Your task to perform on an android device: set the timer Image 0: 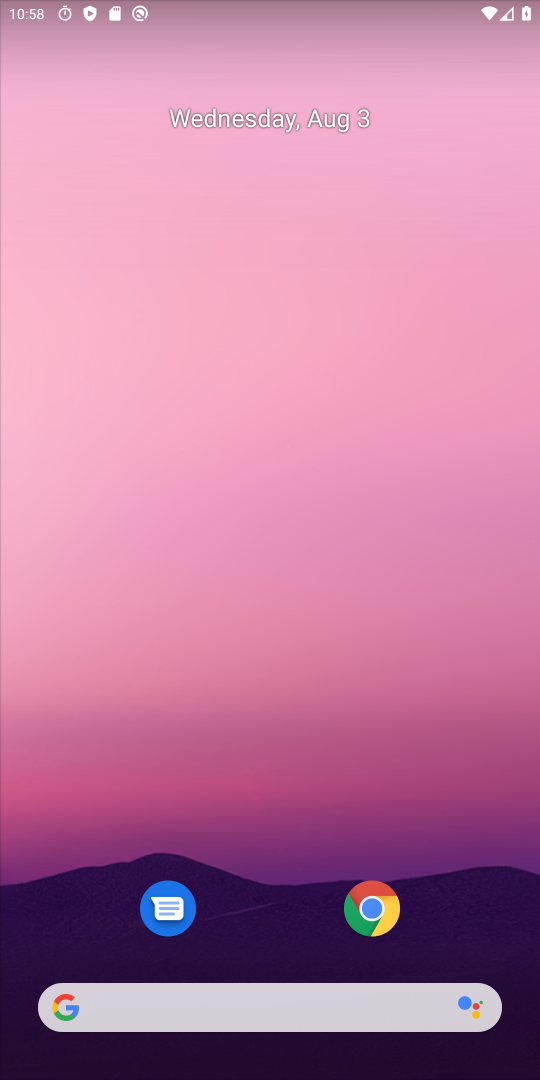
Step 0: press home button
Your task to perform on an android device: set the timer Image 1: 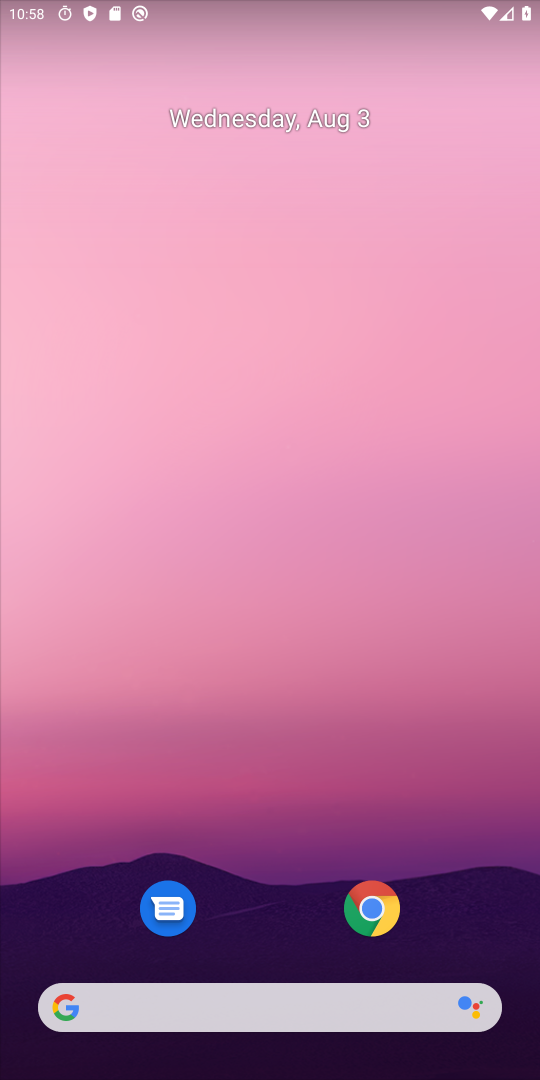
Step 1: drag from (310, 993) to (333, 237)
Your task to perform on an android device: set the timer Image 2: 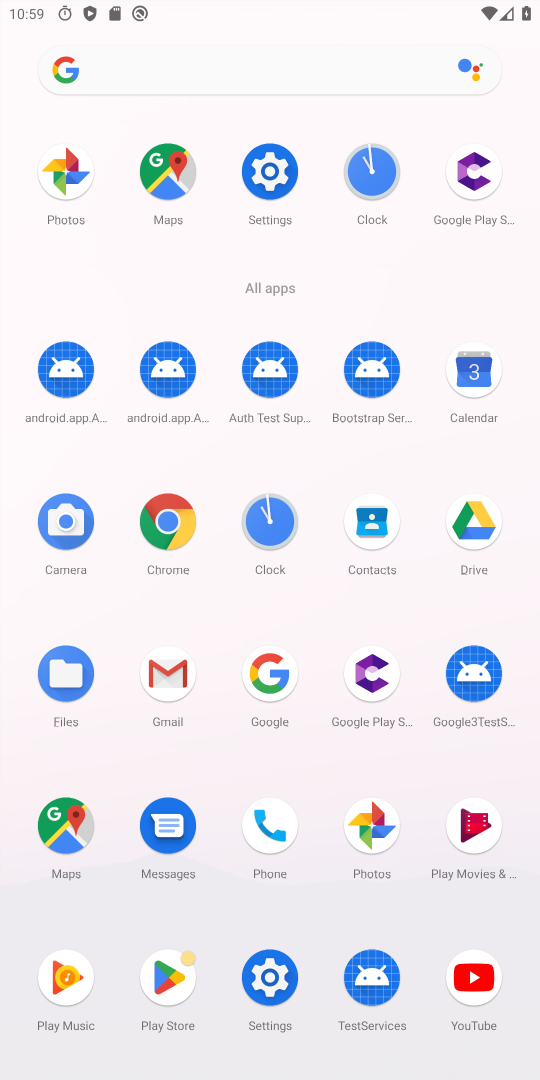
Step 2: click (367, 201)
Your task to perform on an android device: set the timer Image 3: 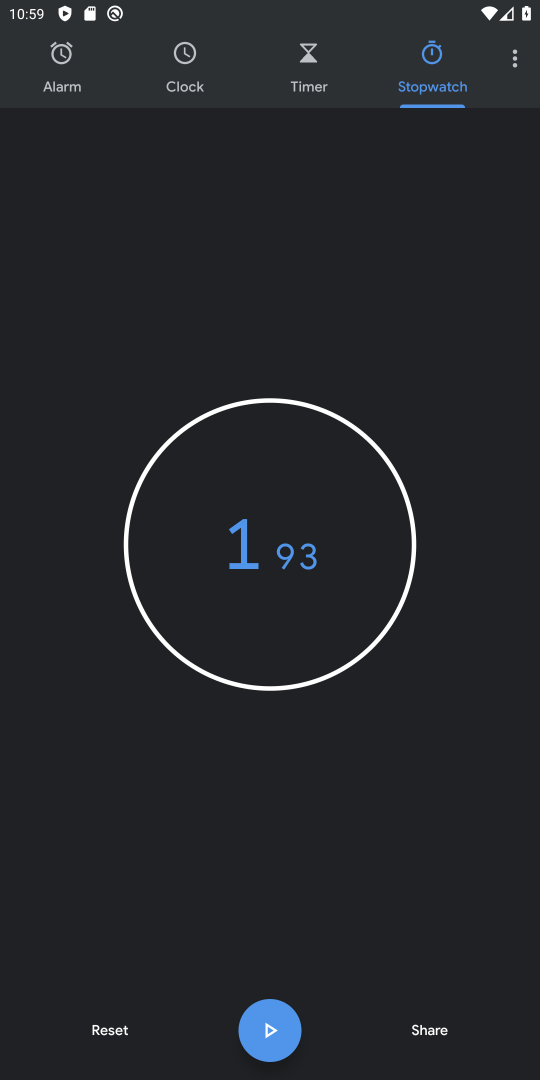
Step 3: click (310, 90)
Your task to perform on an android device: set the timer Image 4: 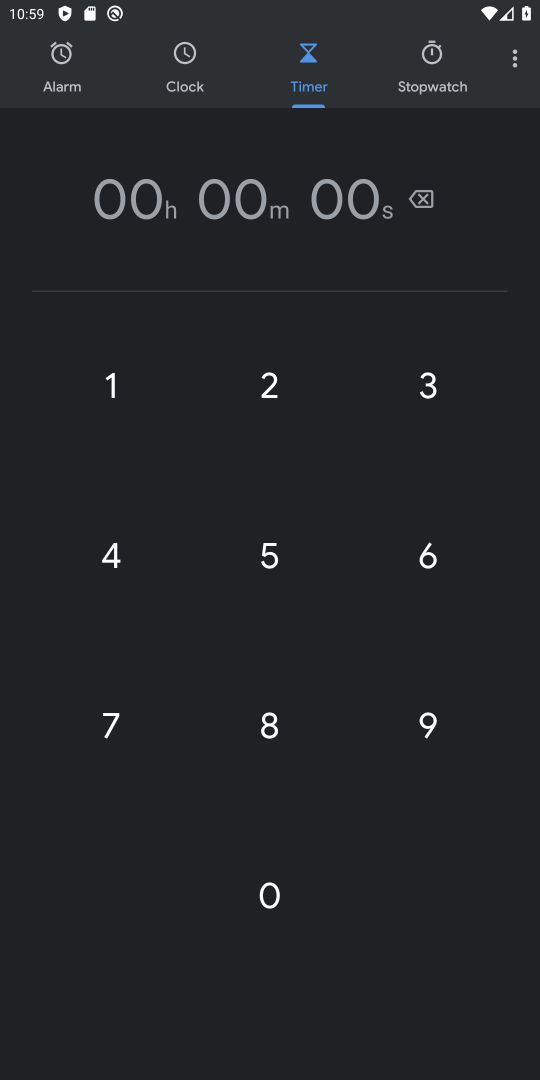
Step 4: click (274, 531)
Your task to perform on an android device: set the timer Image 5: 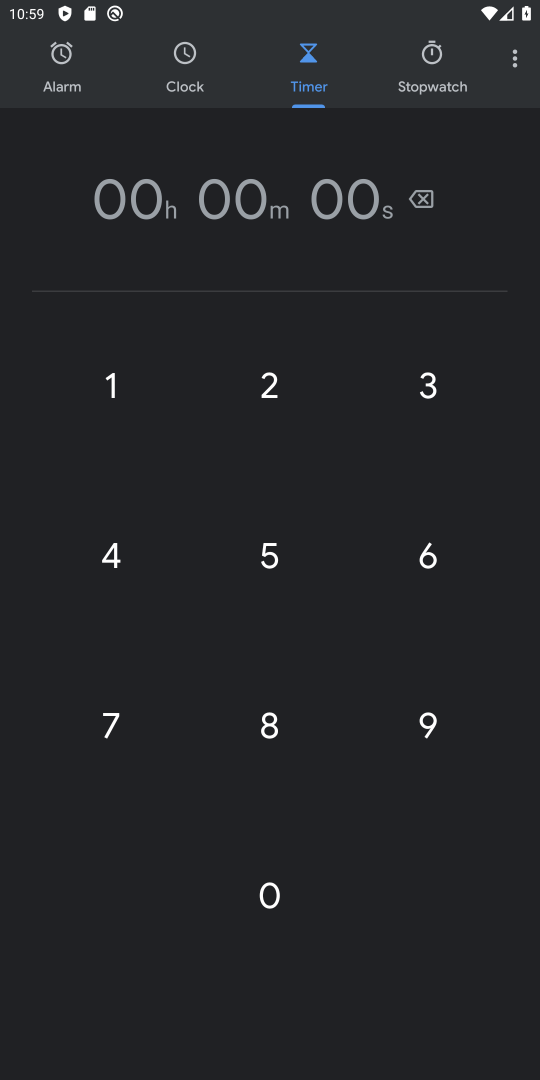
Step 5: click (248, 383)
Your task to perform on an android device: set the timer Image 6: 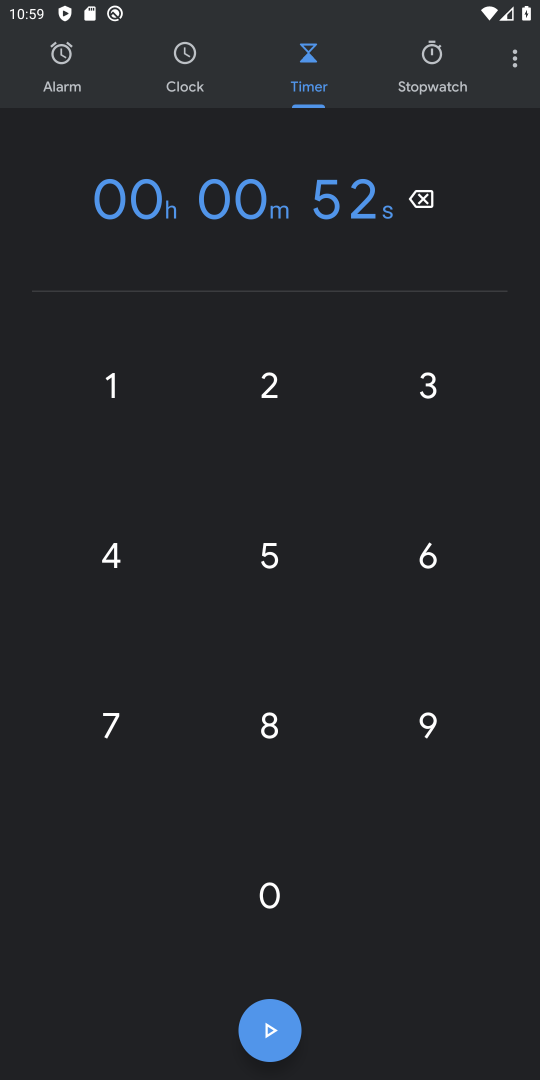
Step 6: click (117, 549)
Your task to perform on an android device: set the timer Image 7: 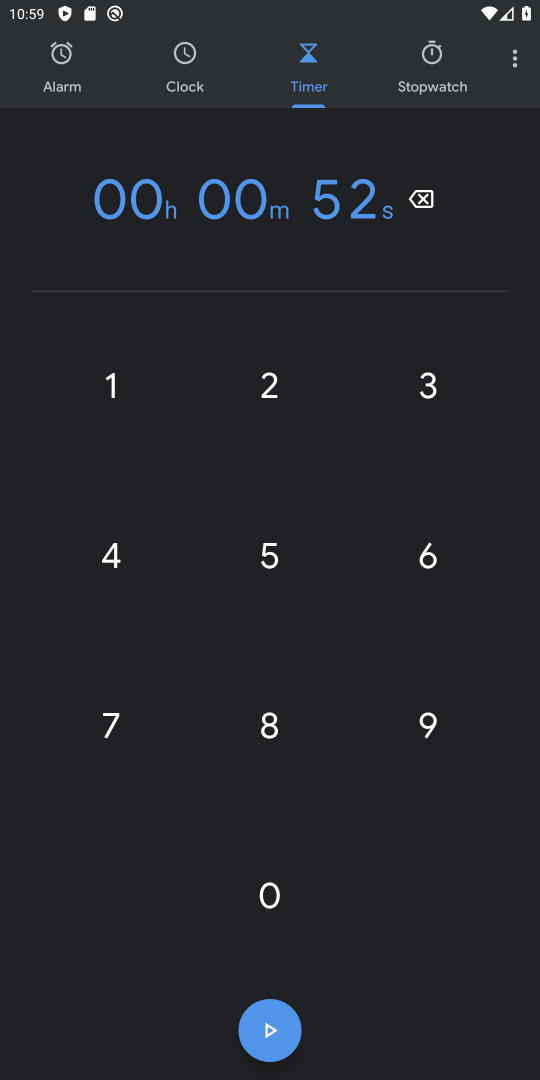
Step 7: click (133, 389)
Your task to perform on an android device: set the timer Image 8: 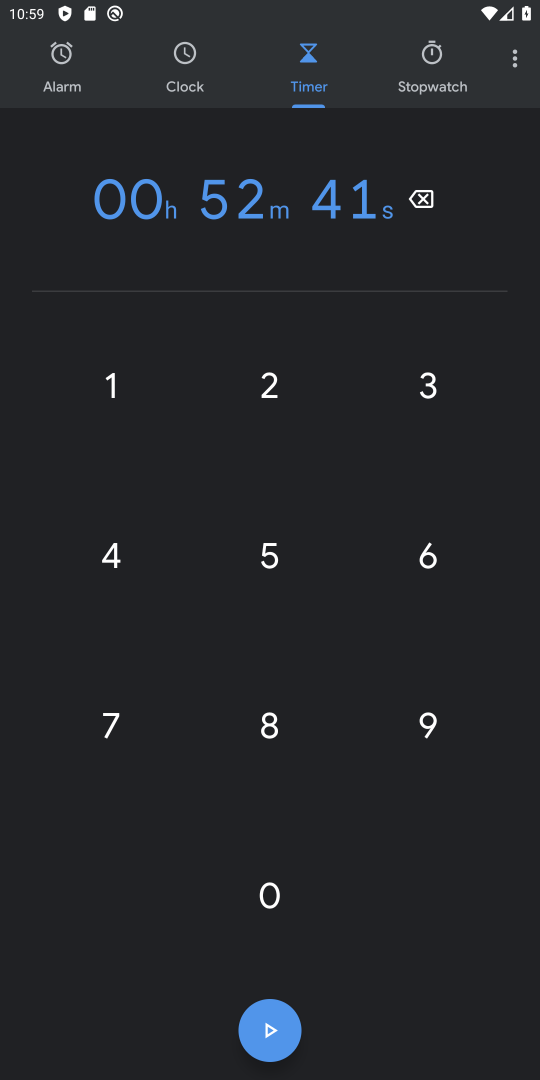
Step 8: task complete